Your task to perform on an android device: check data usage Image 0: 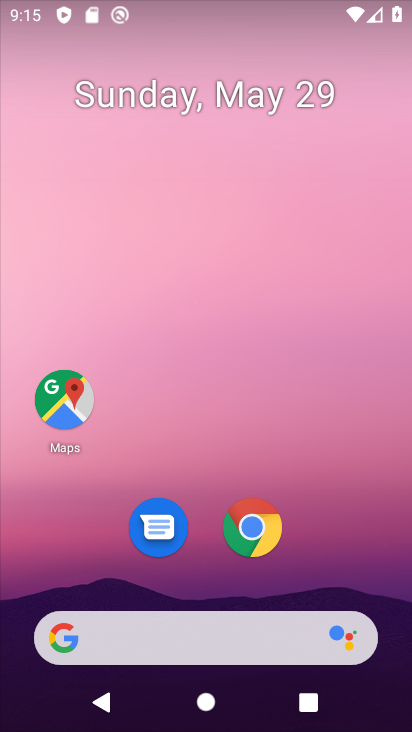
Step 0: drag from (166, 635) to (258, 263)
Your task to perform on an android device: check data usage Image 1: 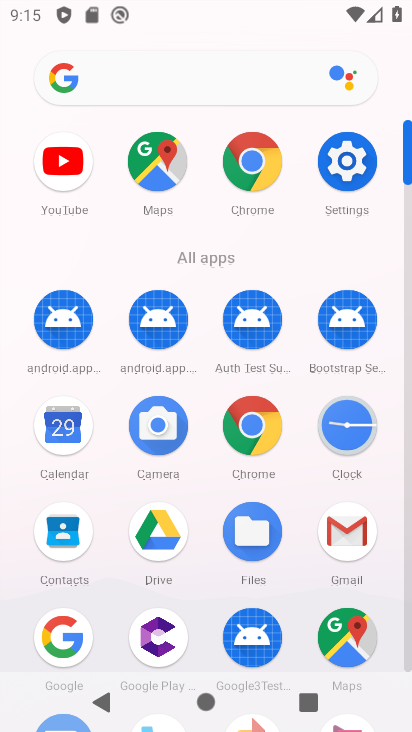
Step 1: click (351, 165)
Your task to perform on an android device: check data usage Image 2: 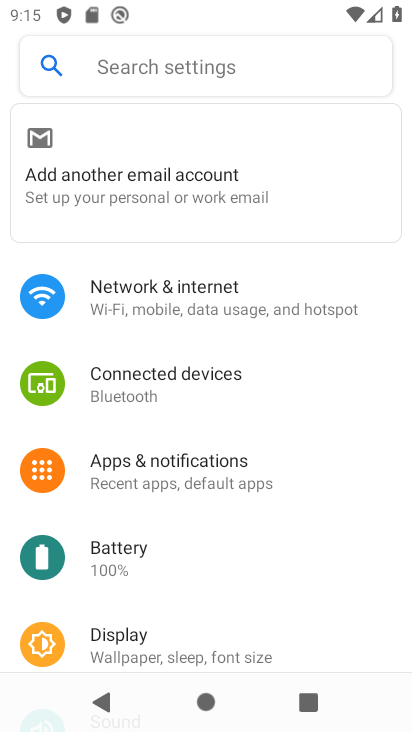
Step 2: click (191, 299)
Your task to perform on an android device: check data usage Image 3: 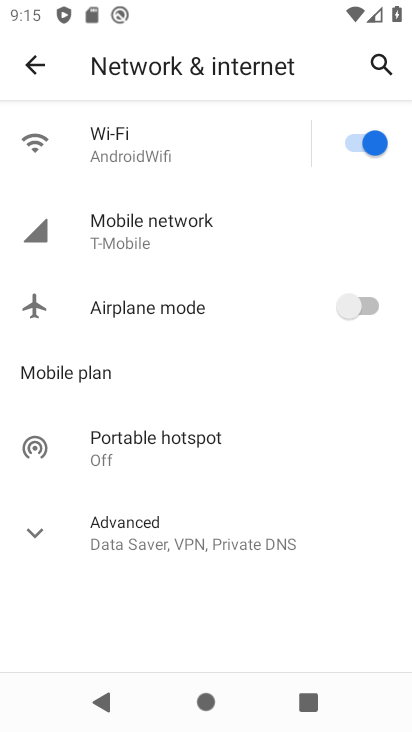
Step 3: click (118, 159)
Your task to perform on an android device: check data usage Image 4: 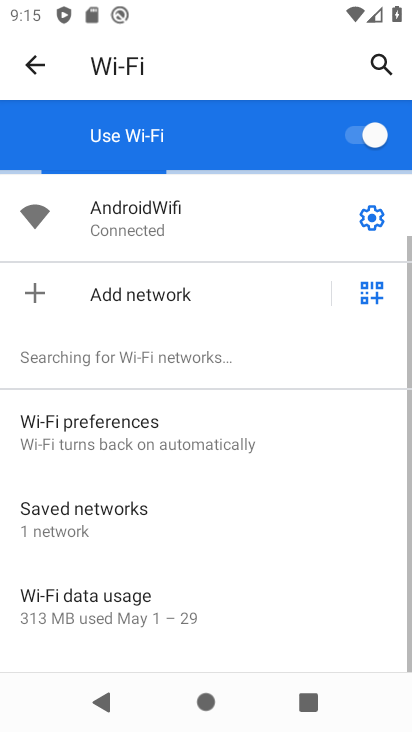
Step 4: click (124, 615)
Your task to perform on an android device: check data usage Image 5: 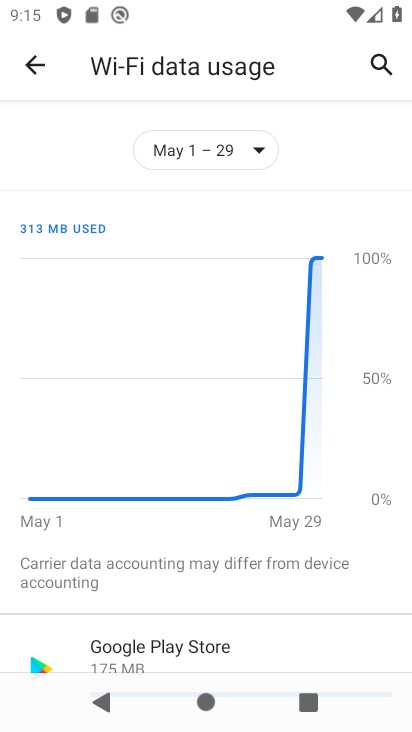
Step 5: task complete